Your task to perform on an android device: Open Youtube and go to the subscriptions tab Image 0: 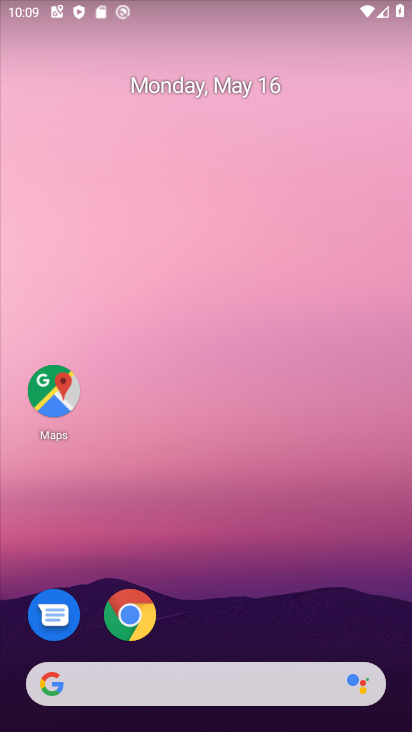
Step 0: press home button
Your task to perform on an android device: Open Youtube and go to the subscriptions tab Image 1: 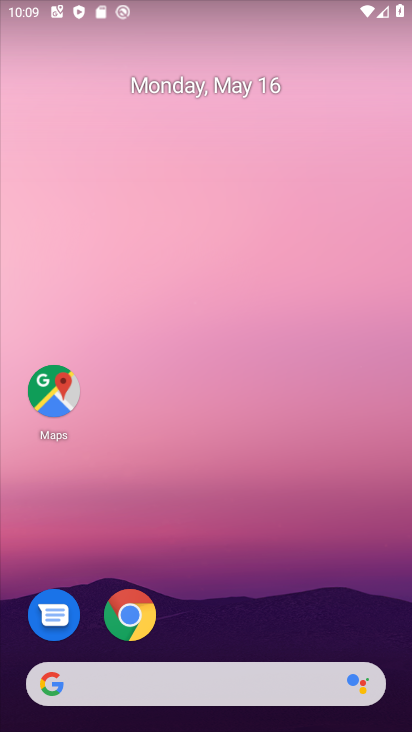
Step 1: drag from (287, 712) to (197, 334)
Your task to perform on an android device: Open Youtube and go to the subscriptions tab Image 2: 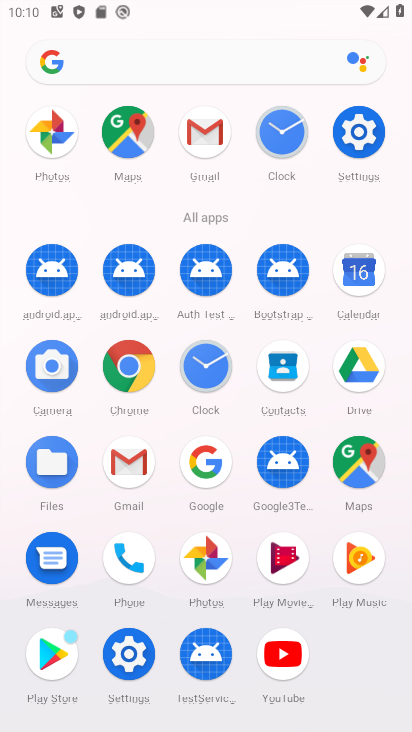
Step 2: click (277, 642)
Your task to perform on an android device: Open Youtube and go to the subscriptions tab Image 3: 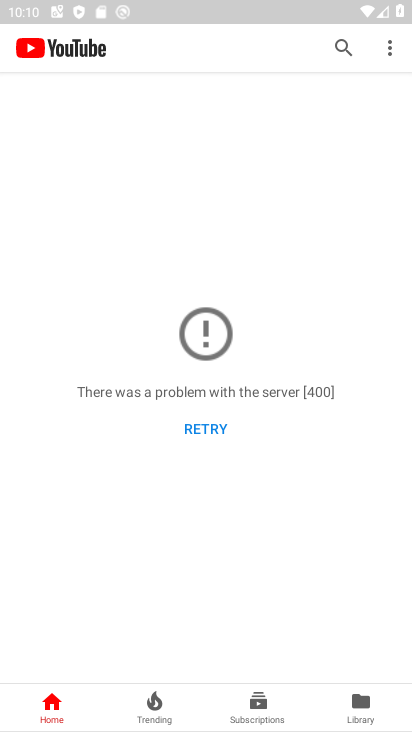
Step 3: click (249, 713)
Your task to perform on an android device: Open Youtube and go to the subscriptions tab Image 4: 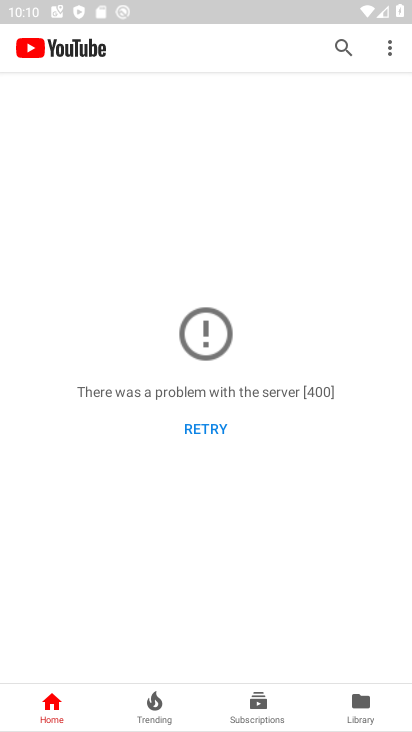
Step 4: click (248, 713)
Your task to perform on an android device: Open Youtube and go to the subscriptions tab Image 5: 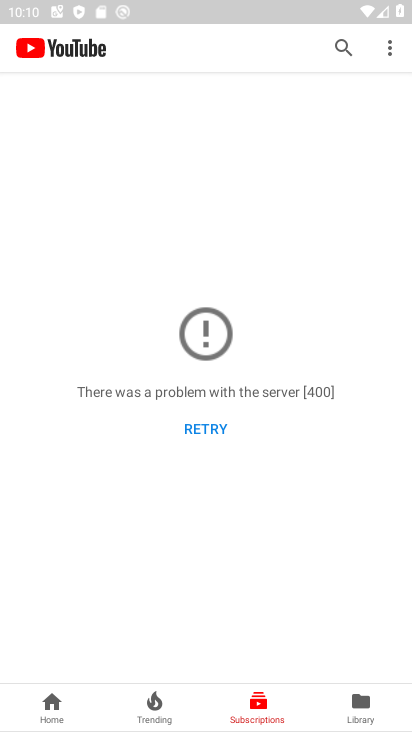
Step 5: click (194, 431)
Your task to perform on an android device: Open Youtube and go to the subscriptions tab Image 6: 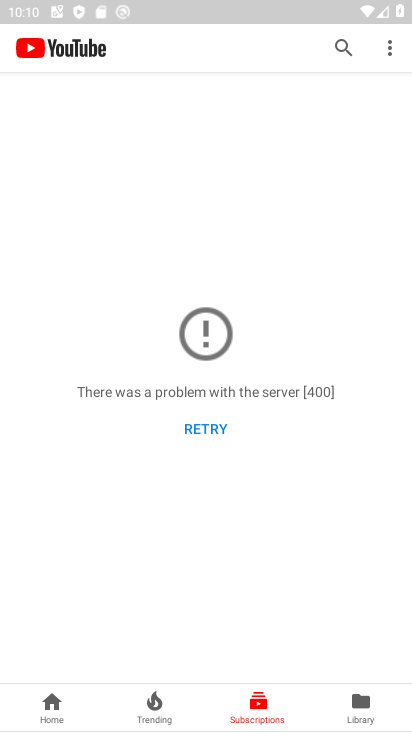
Step 6: click (185, 432)
Your task to perform on an android device: Open Youtube and go to the subscriptions tab Image 7: 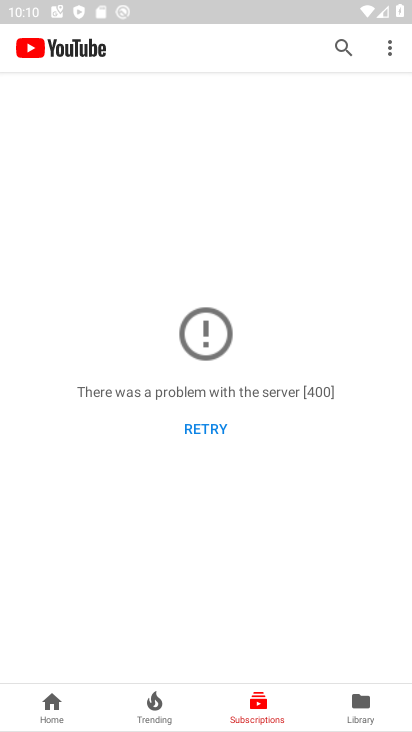
Step 7: task complete